Your task to perform on an android device: make emails show in primary in the gmail app Image 0: 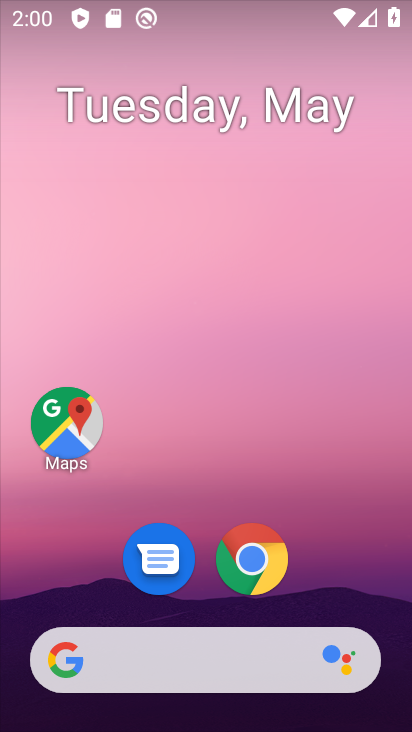
Step 0: drag from (330, 574) to (254, 48)
Your task to perform on an android device: make emails show in primary in the gmail app Image 1: 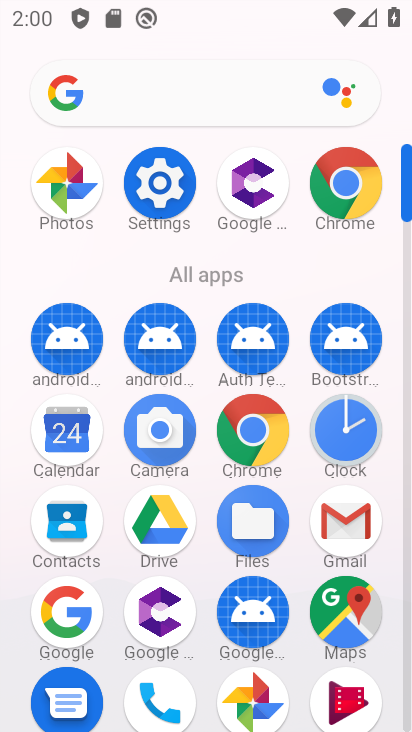
Step 1: click (345, 525)
Your task to perform on an android device: make emails show in primary in the gmail app Image 2: 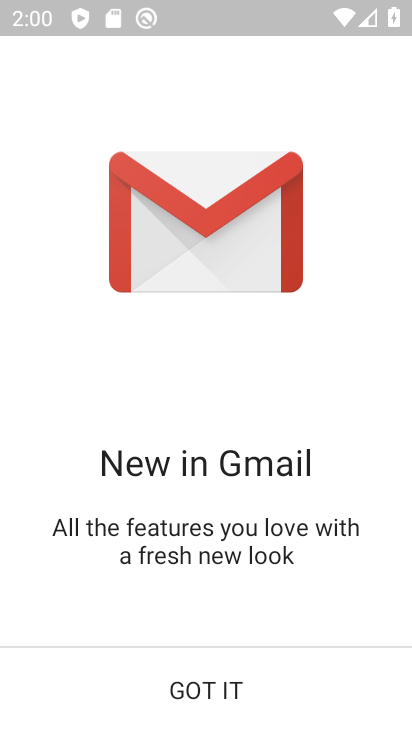
Step 2: click (223, 688)
Your task to perform on an android device: make emails show in primary in the gmail app Image 3: 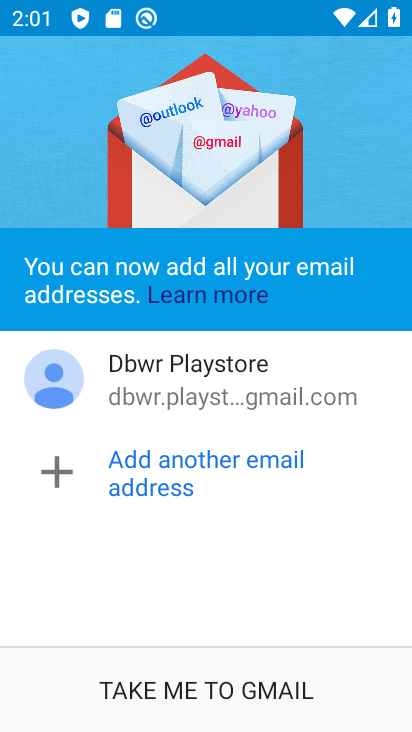
Step 3: click (223, 688)
Your task to perform on an android device: make emails show in primary in the gmail app Image 4: 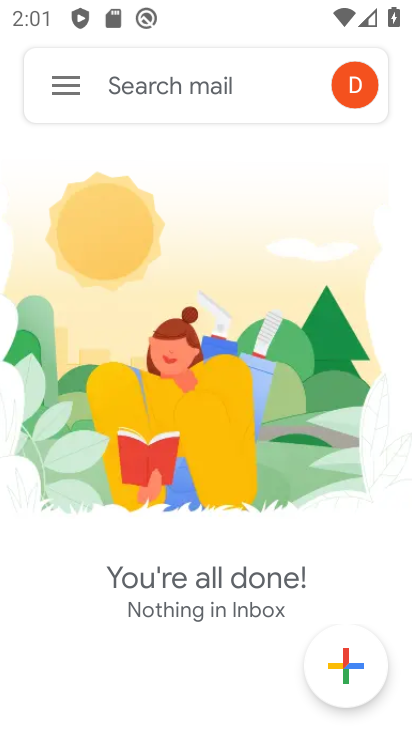
Step 4: click (70, 99)
Your task to perform on an android device: make emails show in primary in the gmail app Image 5: 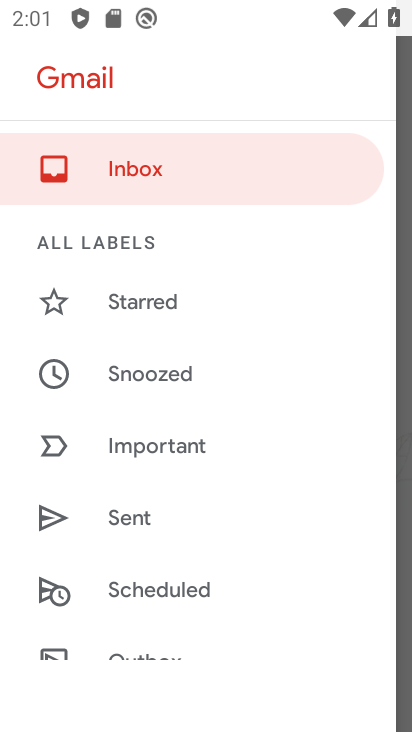
Step 5: drag from (169, 502) to (198, 404)
Your task to perform on an android device: make emails show in primary in the gmail app Image 6: 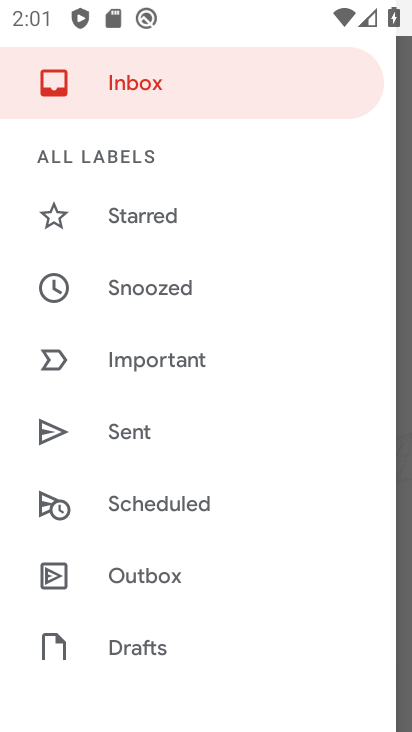
Step 6: drag from (141, 537) to (171, 441)
Your task to perform on an android device: make emails show in primary in the gmail app Image 7: 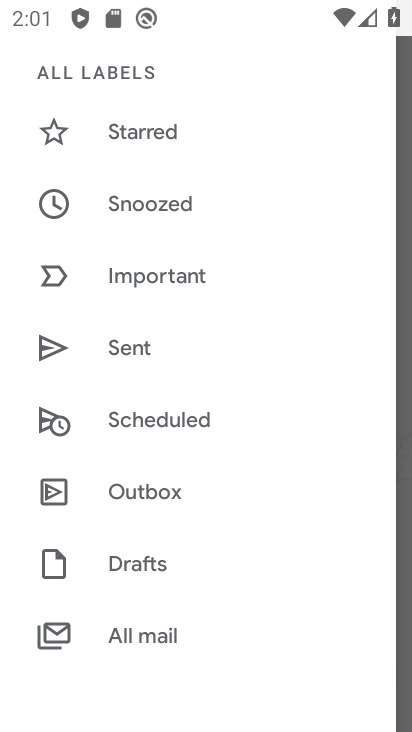
Step 7: drag from (162, 527) to (209, 424)
Your task to perform on an android device: make emails show in primary in the gmail app Image 8: 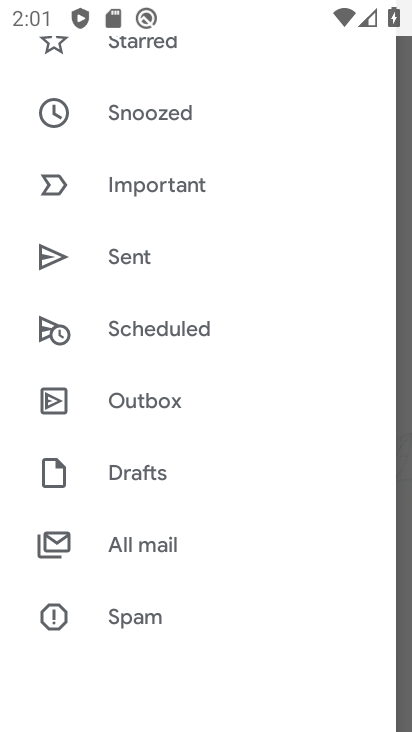
Step 8: drag from (146, 511) to (178, 420)
Your task to perform on an android device: make emails show in primary in the gmail app Image 9: 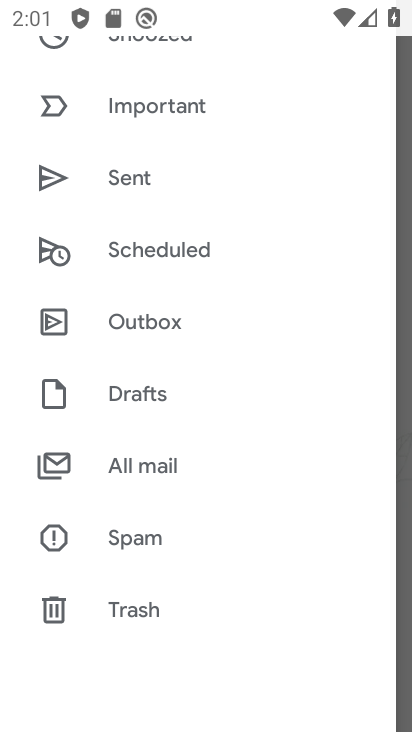
Step 9: drag from (122, 503) to (167, 385)
Your task to perform on an android device: make emails show in primary in the gmail app Image 10: 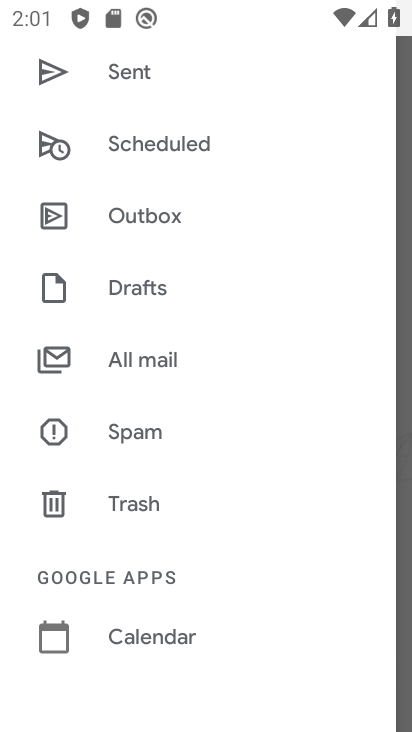
Step 10: drag from (125, 532) to (153, 382)
Your task to perform on an android device: make emails show in primary in the gmail app Image 11: 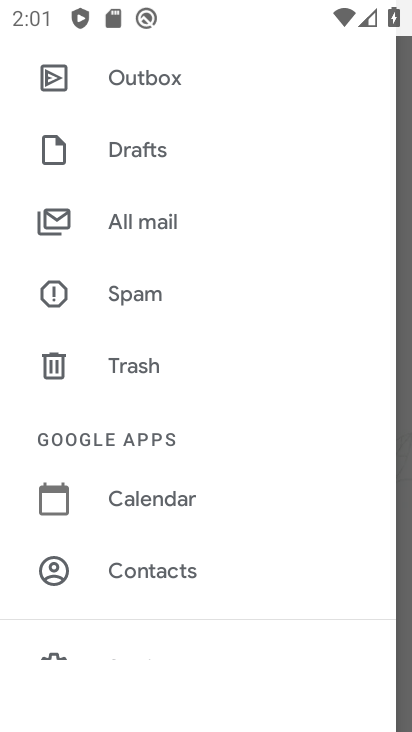
Step 11: drag from (147, 545) to (174, 414)
Your task to perform on an android device: make emails show in primary in the gmail app Image 12: 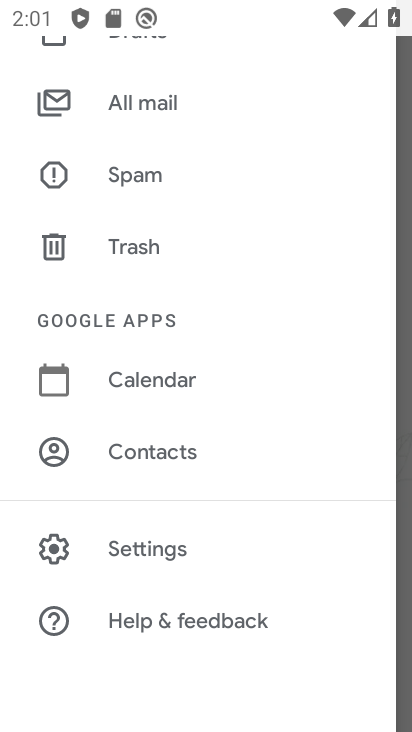
Step 12: click (154, 554)
Your task to perform on an android device: make emails show in primary in the gmail app Image 13: 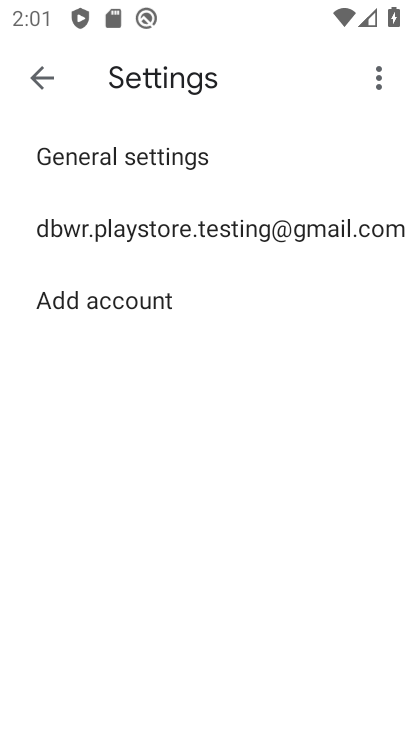
Step 13: click (202, 222)
Your task to perform on an android device: make emails show in primary in the gmail app Image 14: 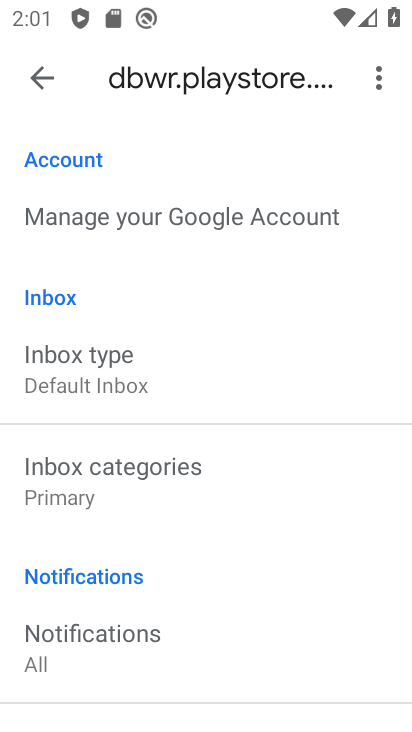
Step 14: click (99, 372)
Your task to perform on an android device: make emails show in primary in the gmail app Image 15: 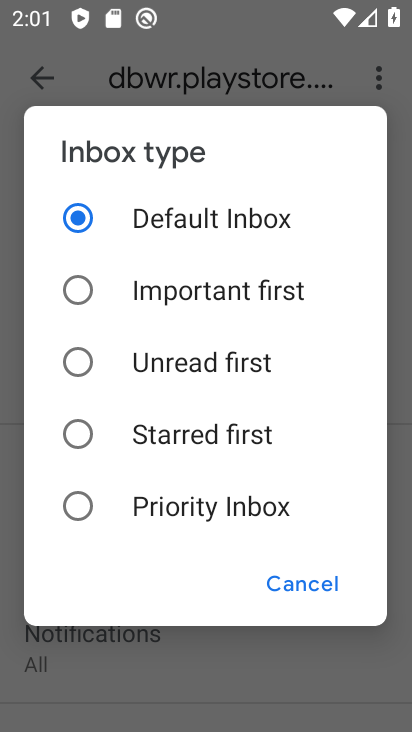
Step 15: click (89, 220)
Your task to perform on an android device: make emails show in primary in the gmail app Image 16: 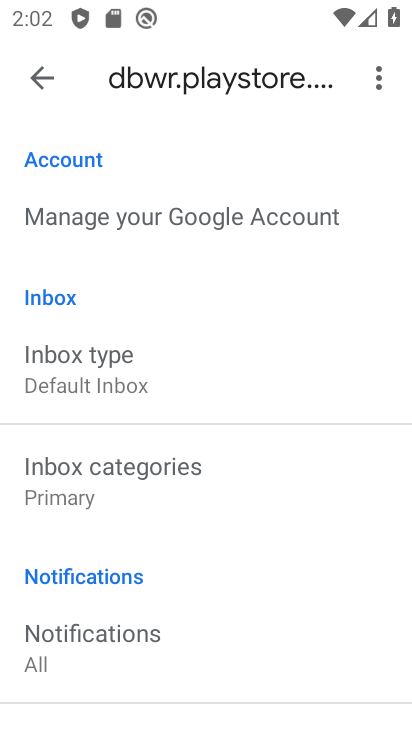
Step 16: task complete